Your task to perform on an android device: View the shopping cart on ebay.com. Search for "razer deathadder" on ebay.com, select the first entry, add it to the cart, then select checkout. Image 0: 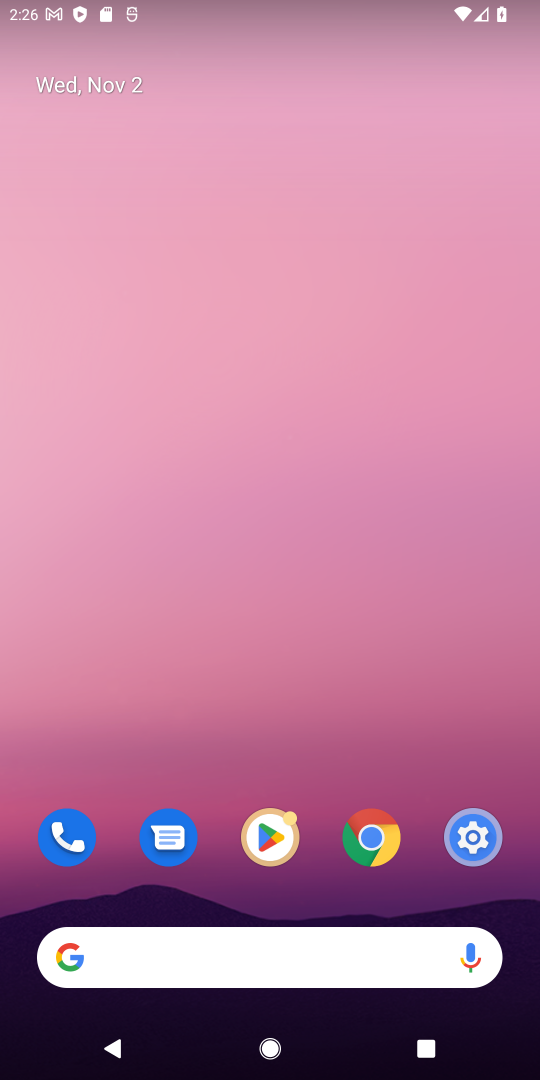
Step 0: drag from (308, 743) to (343, 111)
Your task to perform on an android device: View the shopping cart on ebay.com. Search for "razer deathadder" on ebay.com, select the first entry, add it to the cart, then select checkout. Image 1: 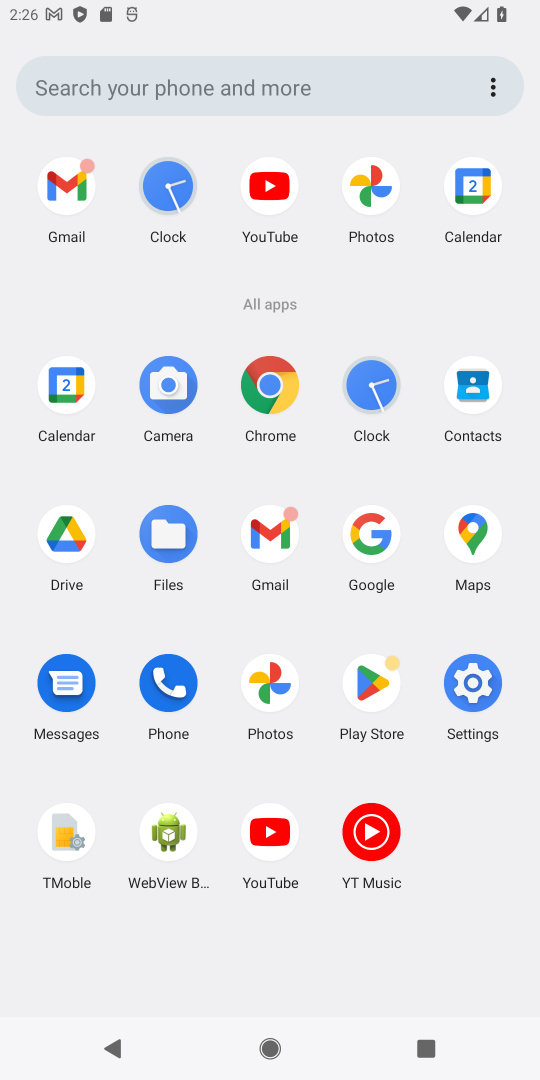
Step 1: click (269, 374)
Your task to perform on an android device: View the shopping cart on ebay.com. Search for "razer deathadder" on ebay.com, select the first entry, add it to the cart, then select checkout. Image 2: 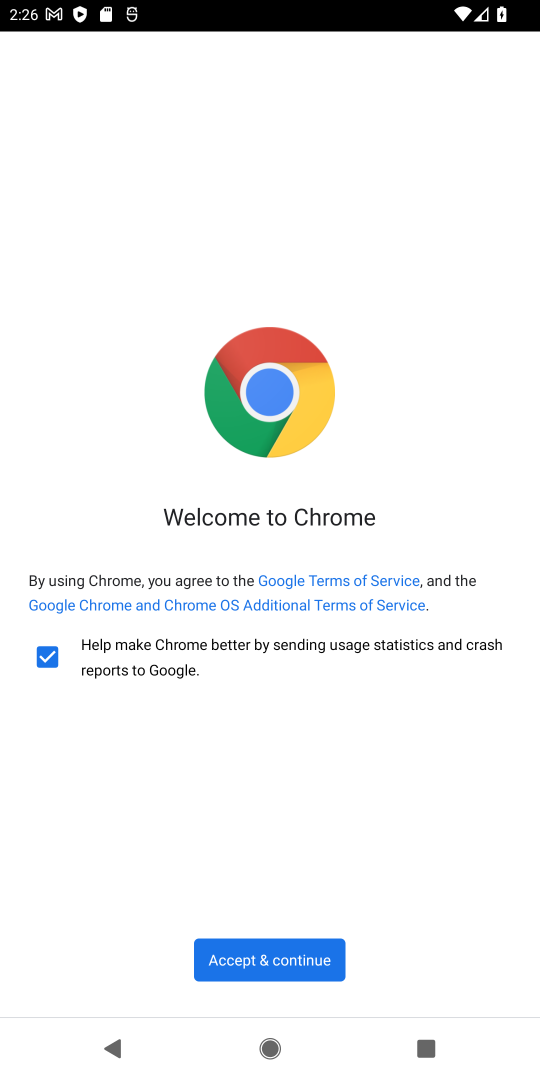
Step 2: click (263, 951)
Your task to perform on an android device: View the shopping cart on ebay.com. Search for "razer deathadder" on ebay.com, select the first entry, add it to the cart, then select checkout. Image 3: 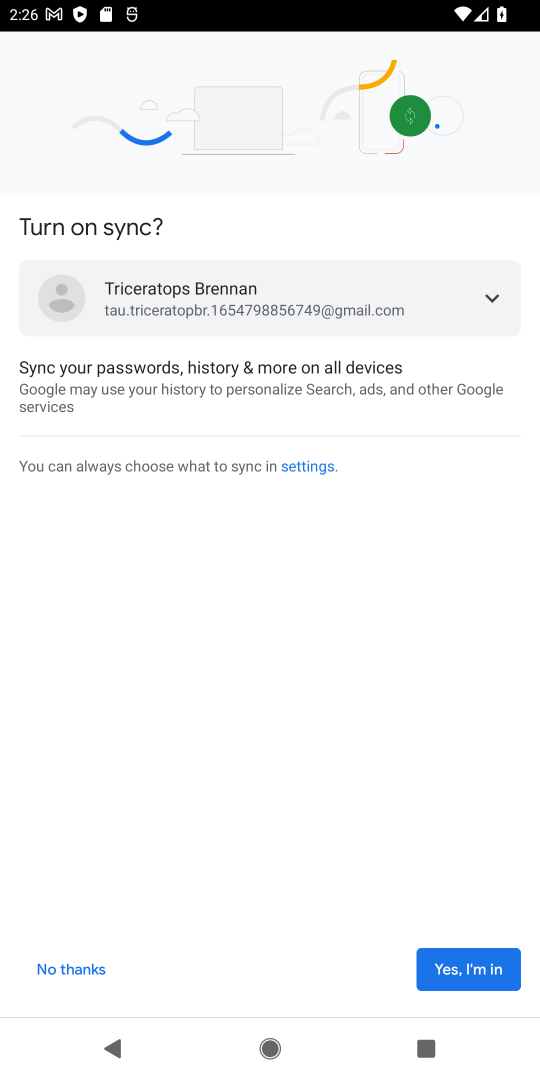
Step 3: click (468, 973)
Your task to perform on an android device: View the shopping cart on ebay.com. Search for "razer deathadder" on ebay.com, select the first entry, add it to the cart, then select checkout. Image 4: 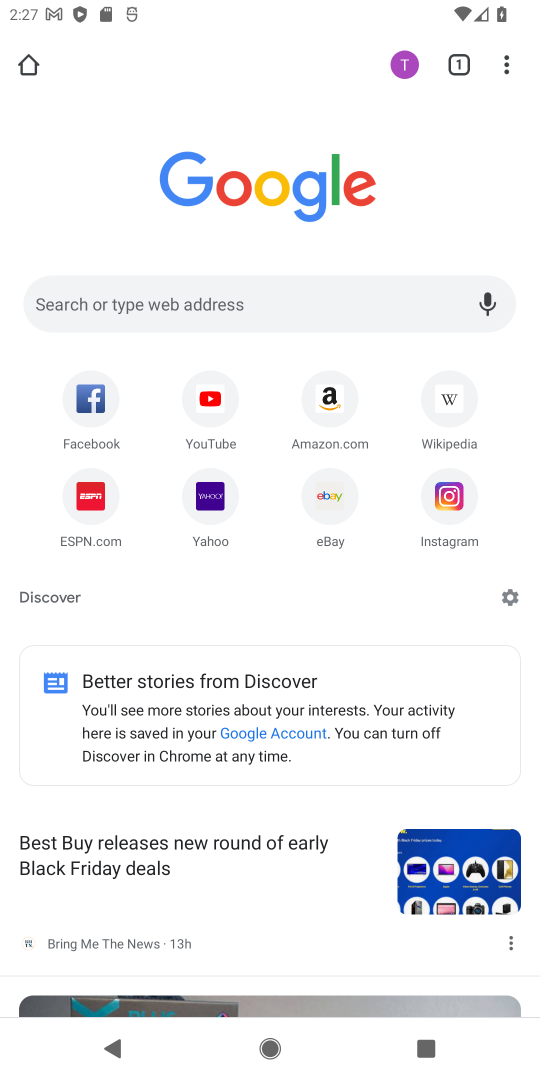
Step 4: click (114, 305)
Your task to perform on an android device: View the shopping cart on ebay.com. Search for "razer deathadder" on ebay.com, select the first entry, add it to the cart, then select checkout. Image 5: 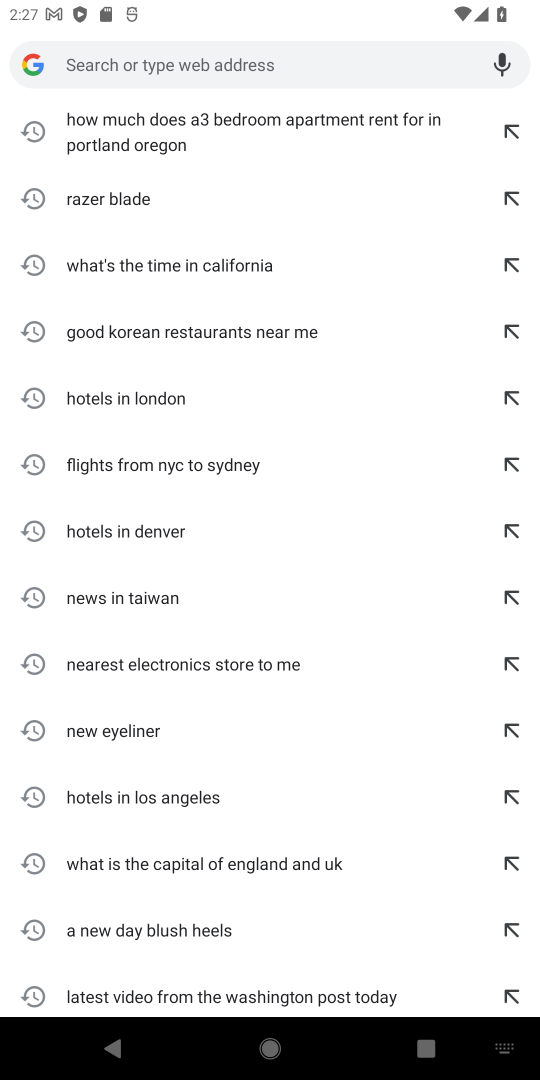
Step 5: type "ebay.com"
Your task to perform on an android device: View the shopping cart on ebay.com. Search for "razer deathadder" on ebay.com, select the first entry, add it to the cart, then select checkout. Image 6: 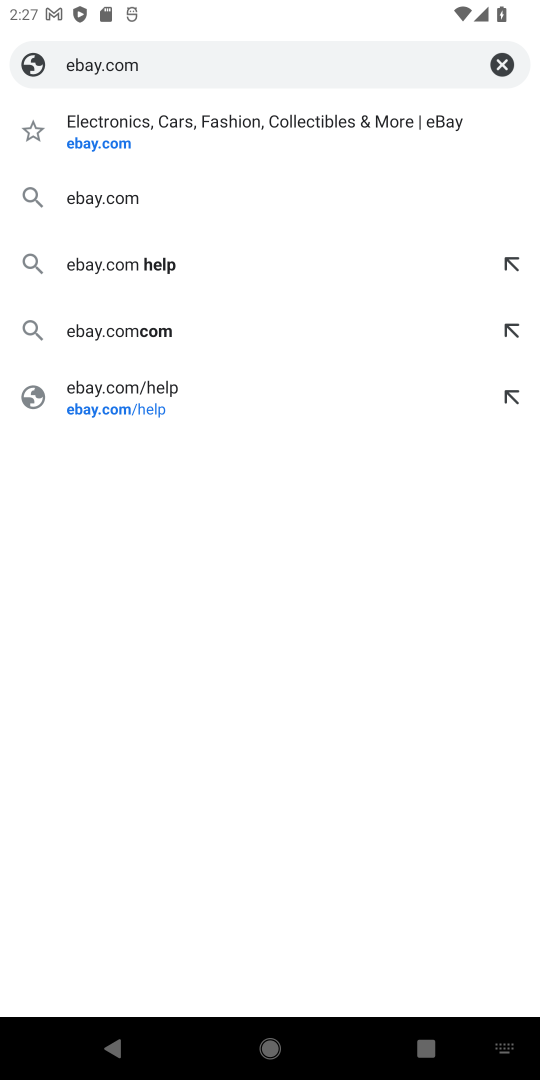
Step 6: click (112, 146)
Your task to perform on an android device: View the shopping cart on ebay.com. Search for "razer deathadder" on ebay.com, select the first entry, add it to the cart, then select checkout. Image 7: 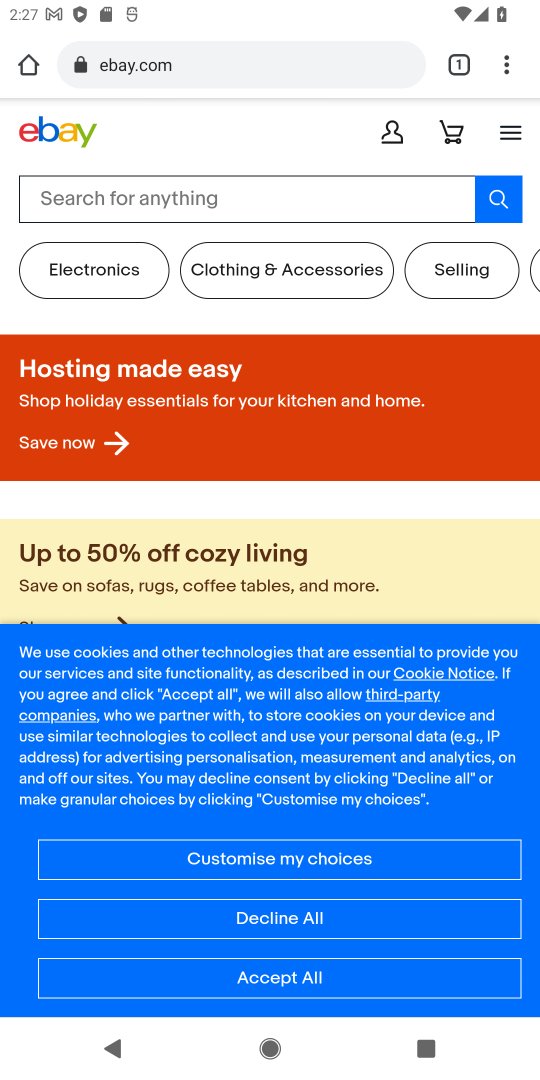
Step 7: click (302, 977)
Your task to perform on an android device: View the shopping cart on ebay.com. Search for "razer deathadder" on ebay.com, select the first entry, add it to the cart, then select checkout. Image 8: 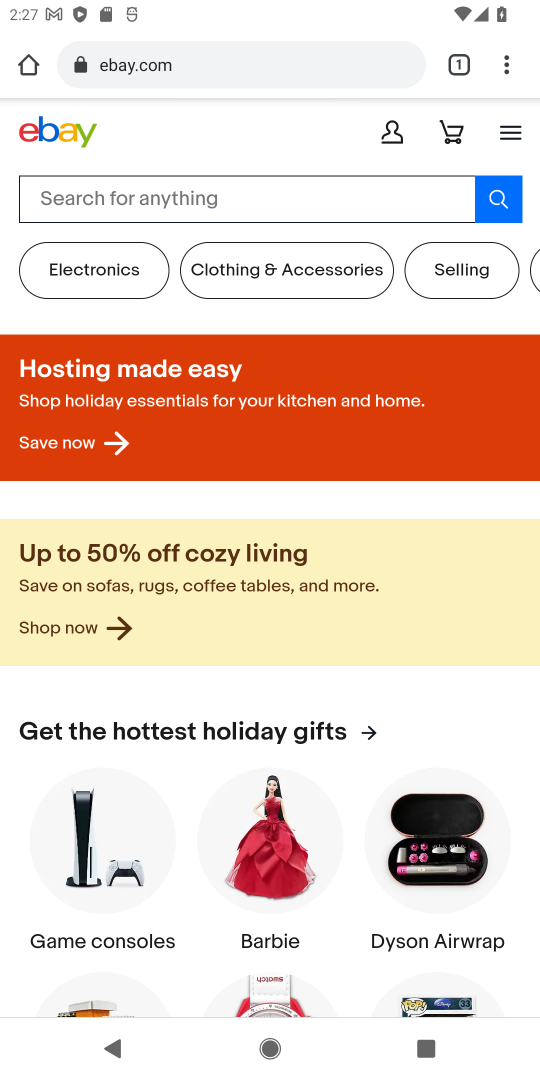
Step 8: click (90, 187)
Your task to perform on an android device: View the shopping cart on ebay.com. Search for "razer deathadder" on ebay.com, select the first entry, add it to the cart, then select checkout. Image 9: 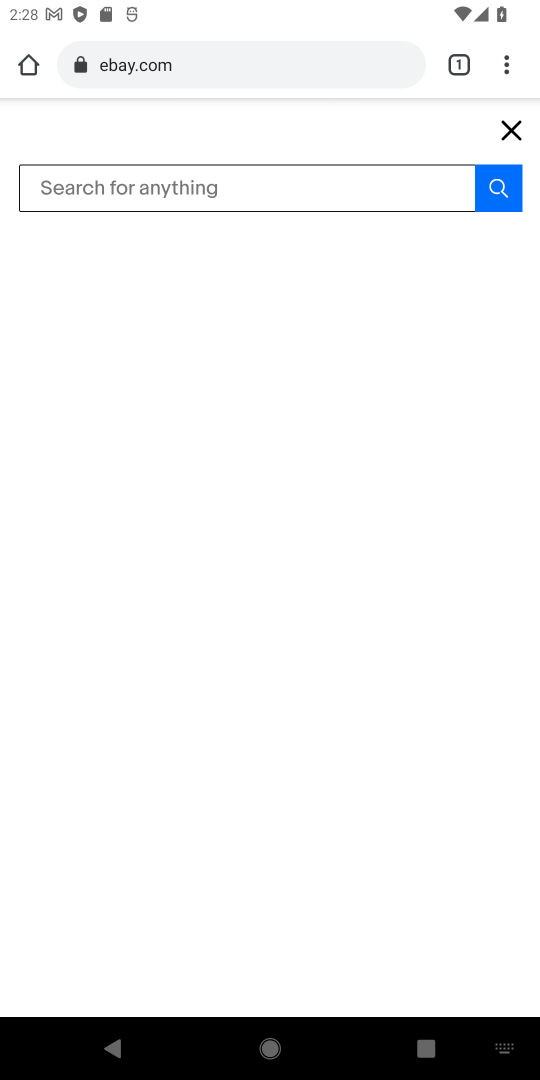
Step 9: type "razer deathadder"
Your task to perform on an android device: View the shopping cart on ebay.com. Search for "razer deathadder" on ebay.com, select the first entry, add it to the cart, then select checkout. Image 10: 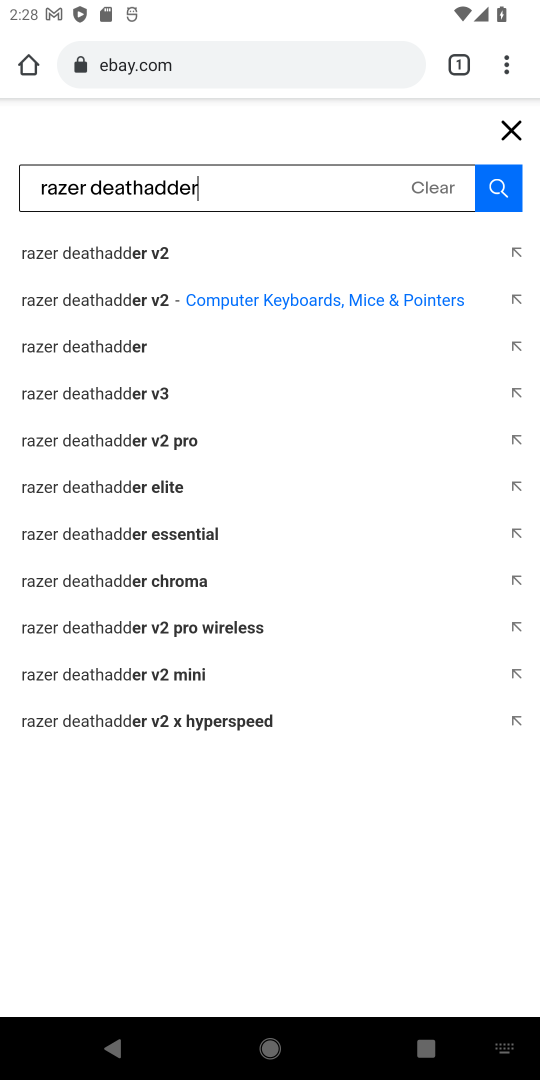
Step 10: click (183, 307)
Your task to perform on an android device: View the shopping cart on ebay.com. Search for "razer deathadder" on ebay.com, select the first entry, add it to the cart, then select checkout. Image 11: 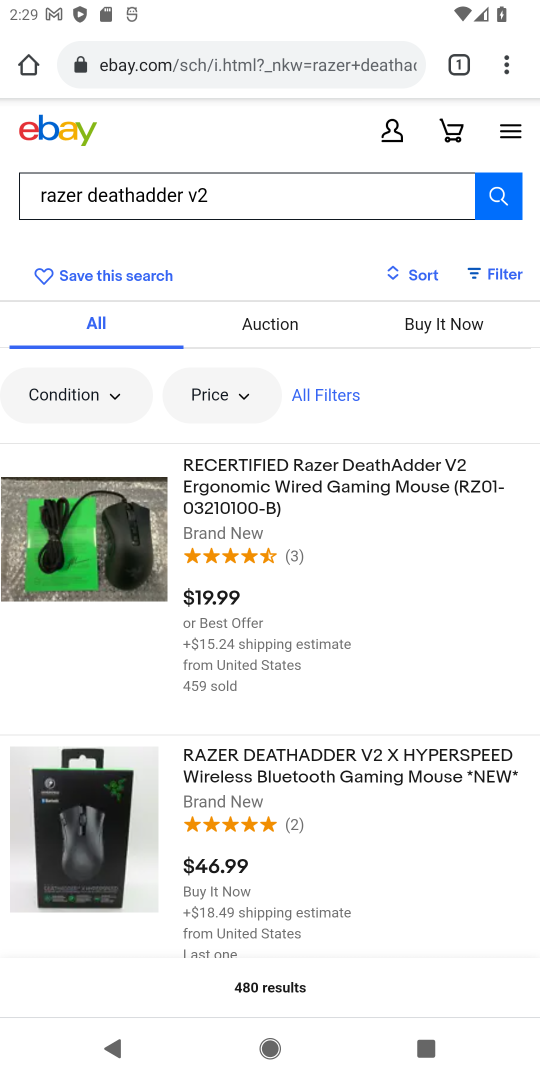
Step 11: click (251, 488)
Your task to perform on an android device: View the shopping cart on ebay.com. Search for "razer deathadder" on ebay.com, select the first entry, add it to the cart, then select checkout. Image 12: 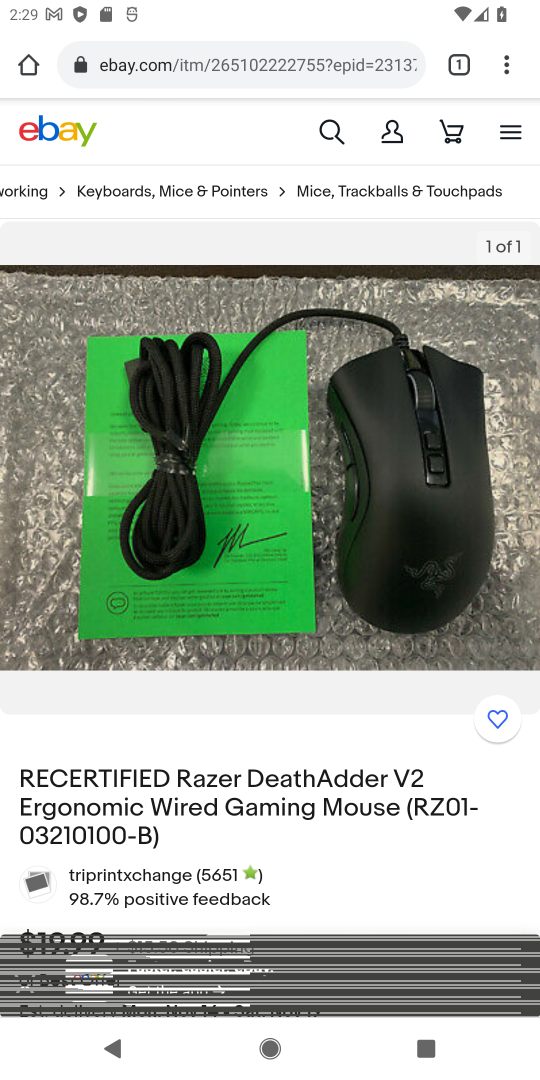
Step 12: drag from (271, 837) to (355, 408)
Your task to perform on an android device: View the shopping cart on ebay.com. Search for "razer deathadder" on ebay.com, select the first entry, add it to the cart, then select checkout. Image 13: 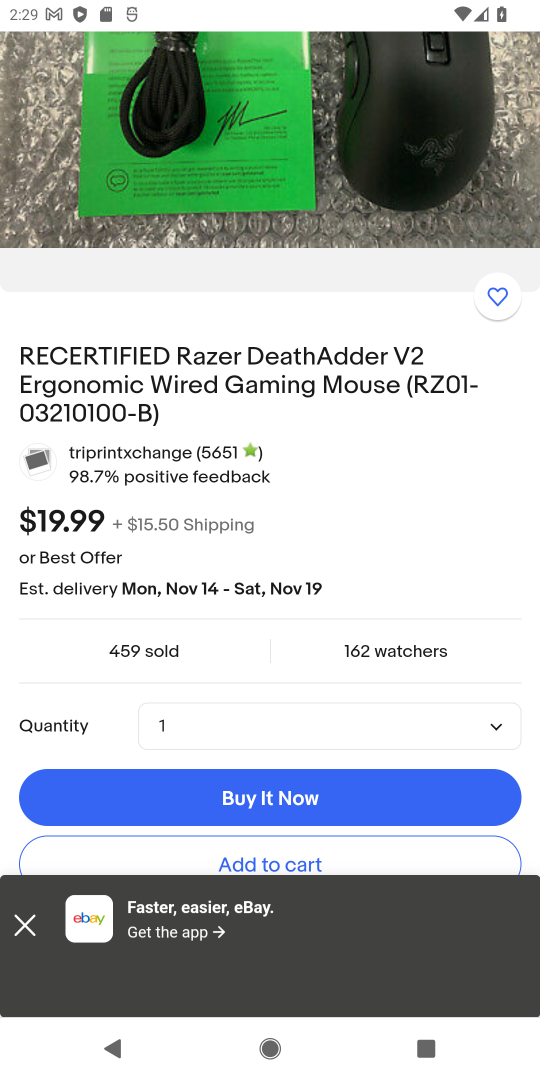
Step 13: click (19, 932)
Your task to perform on an android device: View the shopping cart on ebay.com. Search for "razer deathadder" on ebay.com, select the first entry, add it to the cart, then select checkout. Image 14: 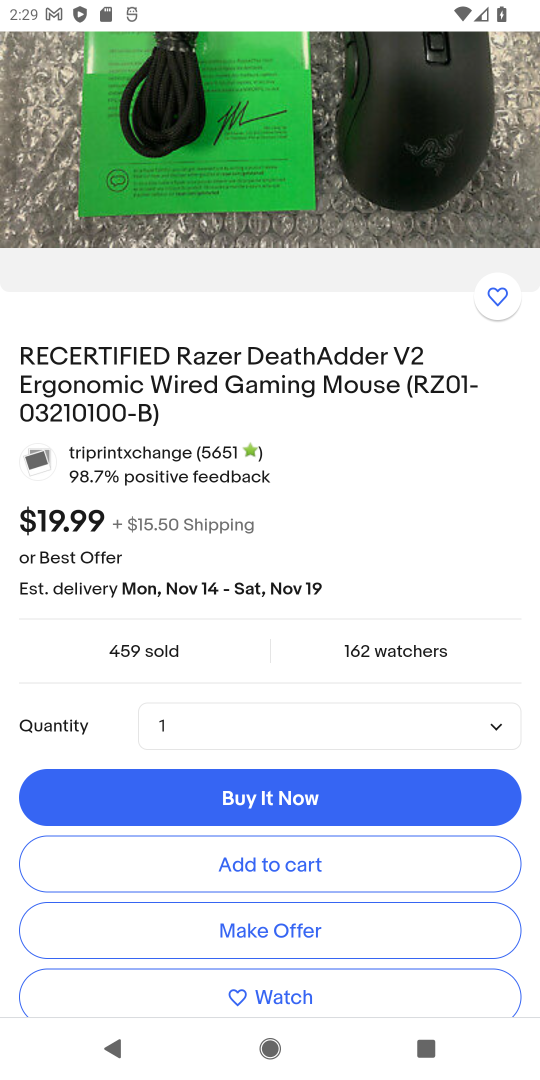
Step 14: click (275, 865)
Your task to perform on an android device: View the shopping cart on ebay.com. Search for "razer deathadder" on ebay.com, select the first entry, add it to the cart, then select checkout. Image 15: 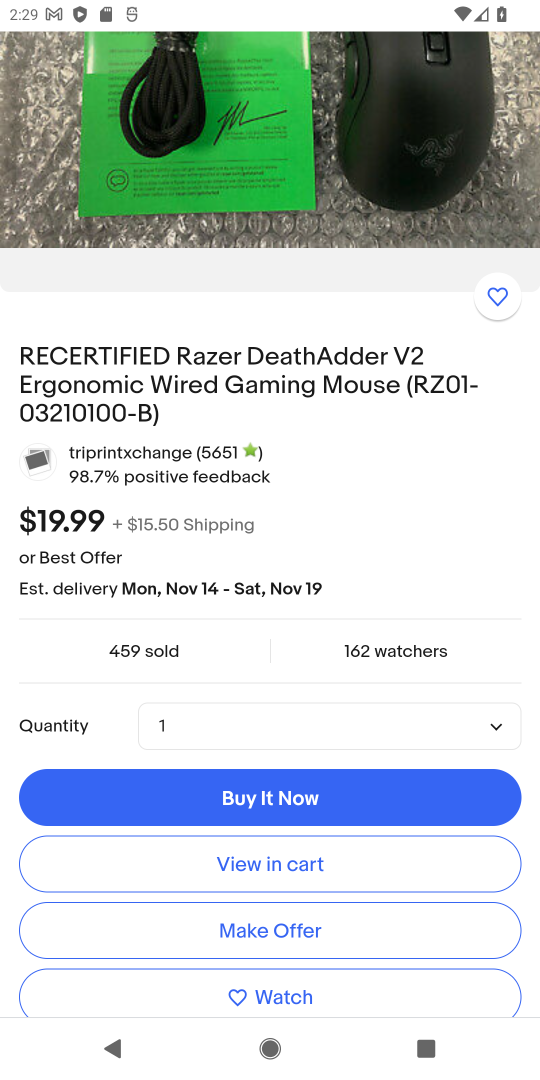
Step 15: click (275, 865)
Your task to perform on an android device: View the shopping cart on ebay.com. Search for "razer deathadder" on ebay.com, select the first entry, add it to the cart, then select checkout. Image 16: 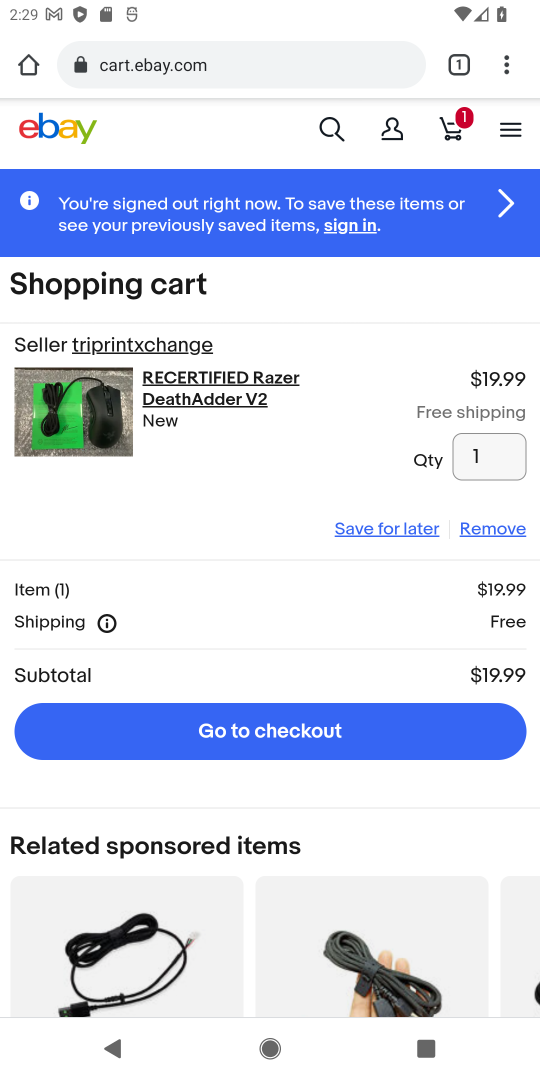
Step 16: click (244, 728)
Your task to perform on an android device: View the shopping cart on ebay.com. Search for "razer deathadder" on ebay.com, select the first entry, add it to the cart, then select checkout. Image 17: 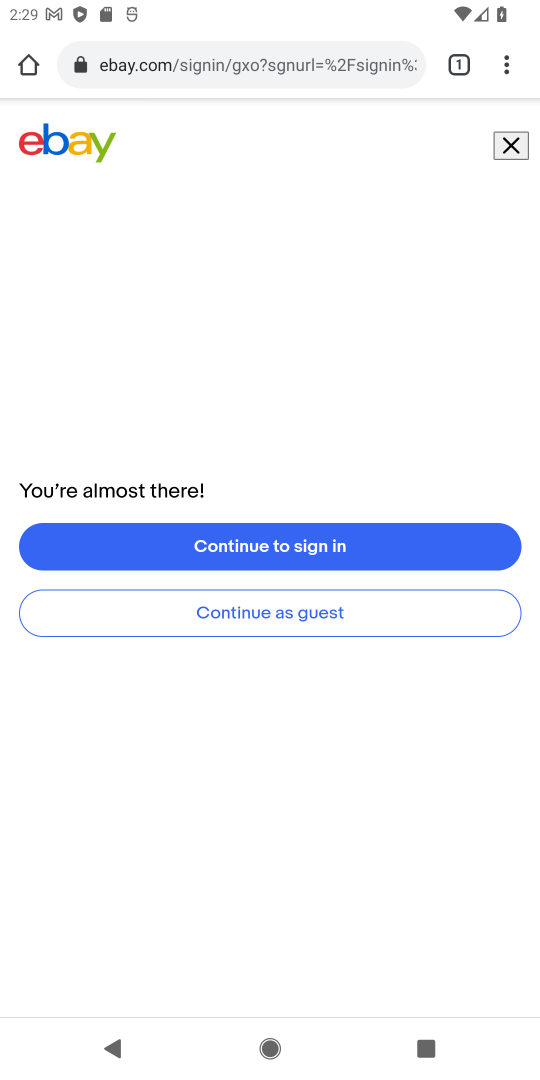
Step 17: task complete